Your task to perform on an android device: Open CNN.com Image 0: 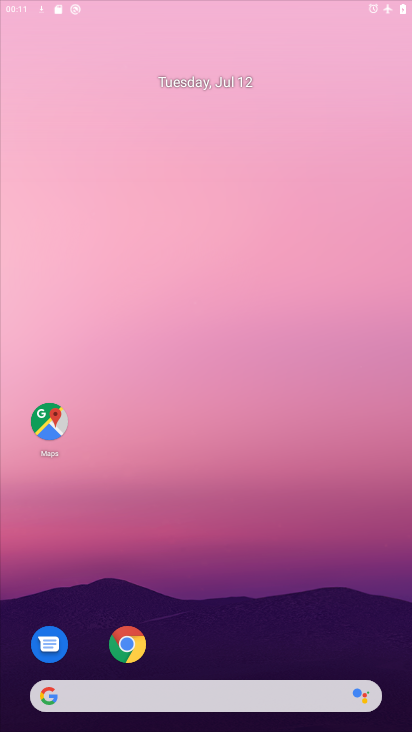
Step 0: drag from (244, 573) to (247, 327)
Your task to perform on an android device: Open CNN.com Image 1: 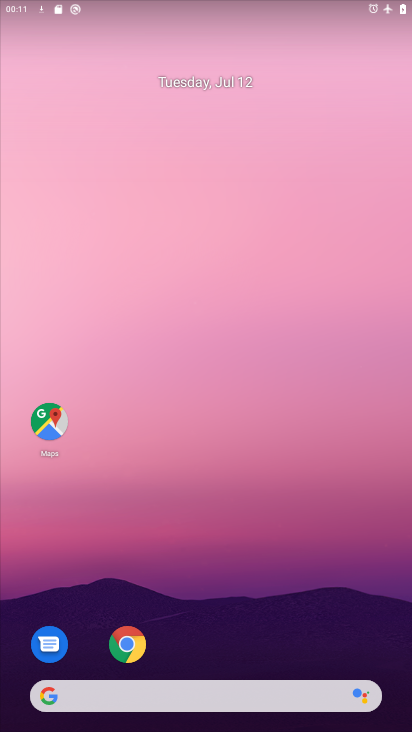
Step 1: drag from (181, 665) to (232, 303)
Your task to perform on an android device: Open CNN.com Image 2: 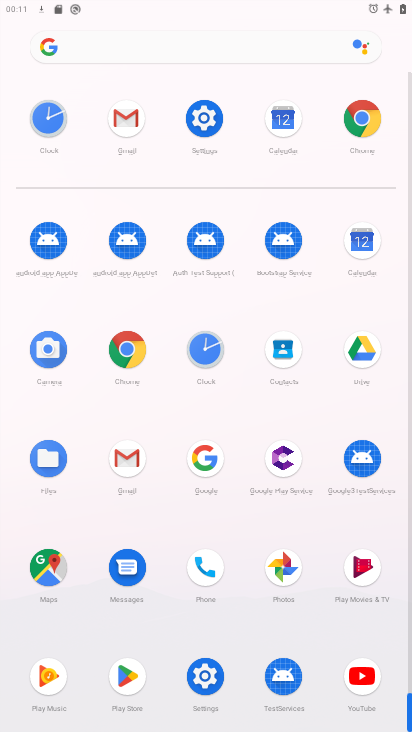
Step 2: click (364, 110)
Your task to perform on an android device: Open CNN.com Image 3: 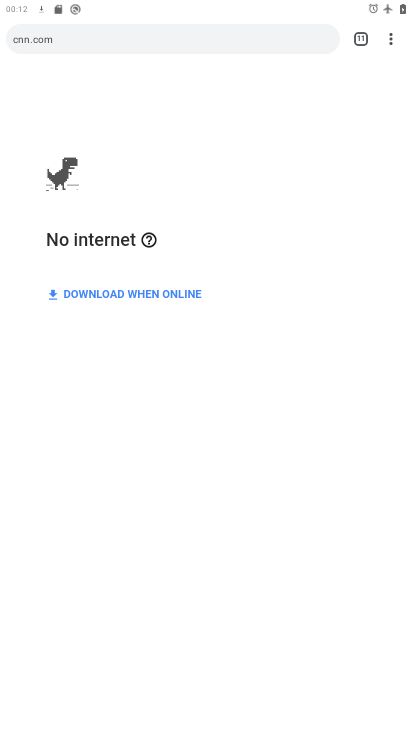
Step 3: click (388, 25)
Your task to perform on an android device: Open CNN.com Image 4: 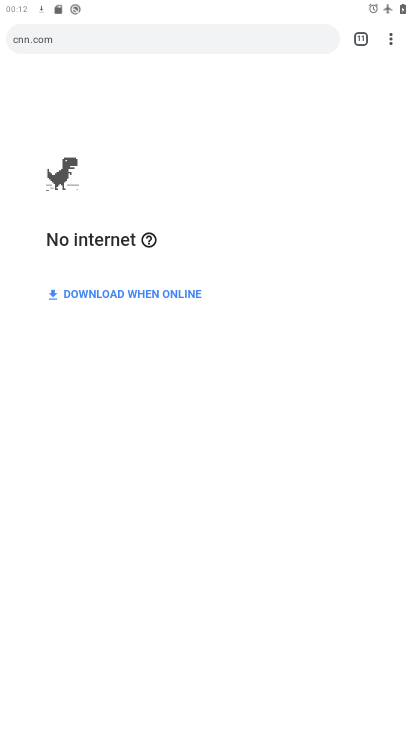
Step 4: click (394, 29)
Your task to perform on an android device: Open CNN.com Image 5: 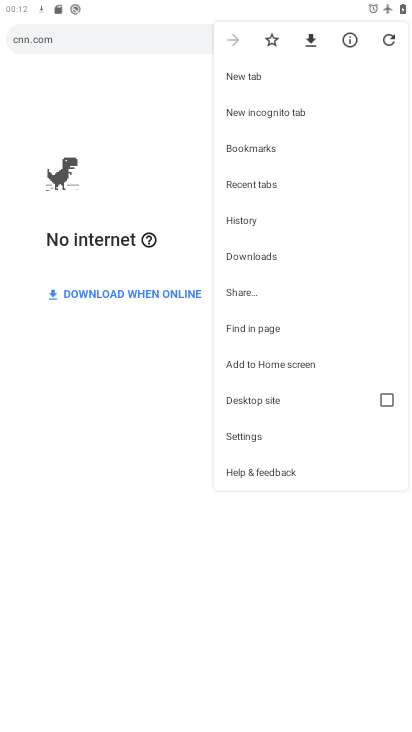
Step 5: click (270, 79)
Your task to perform on an android device: Open CNN.com Image 6: 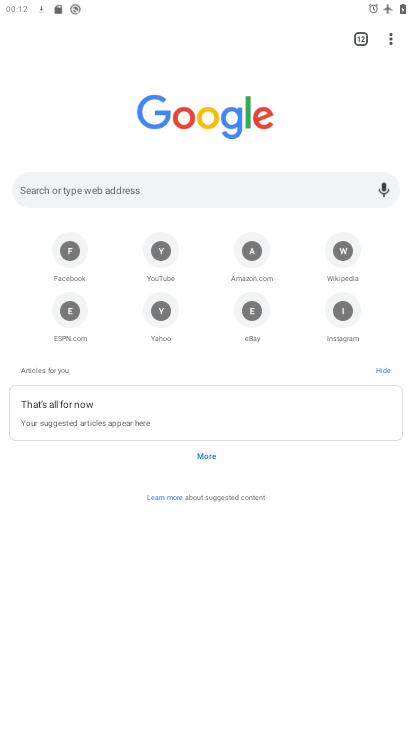
Step 6: click (253, 177)
Your task to perform on an android device: Open CNN.com Image 7: 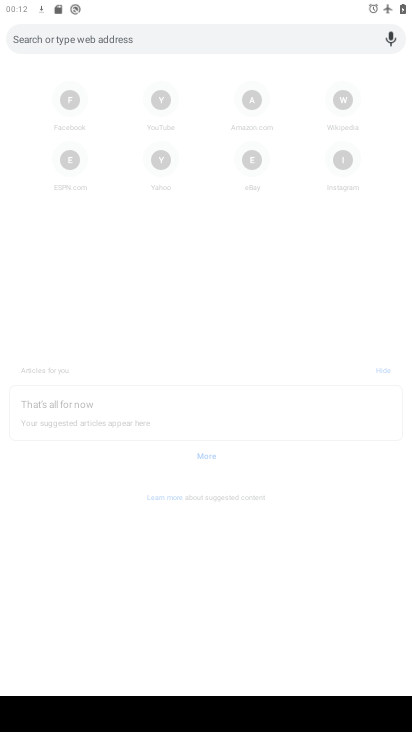
Step 7: type " CNN.com "
Your task to perform on an android device: Open CNN.com Image 8: 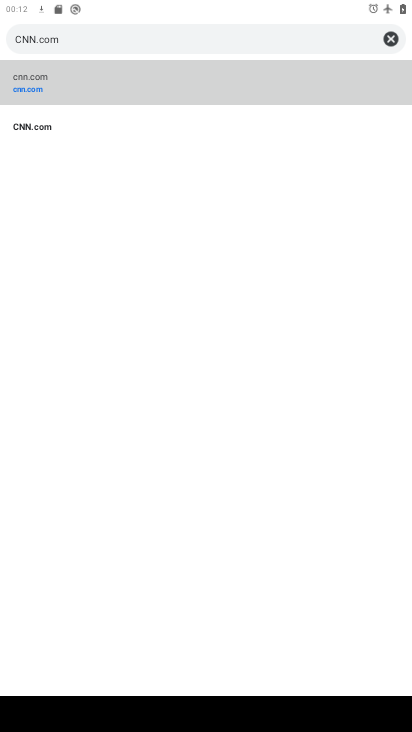
Step 8: click (114, 92)
Your task to perform on an android device: Open CNN.com Image 9: 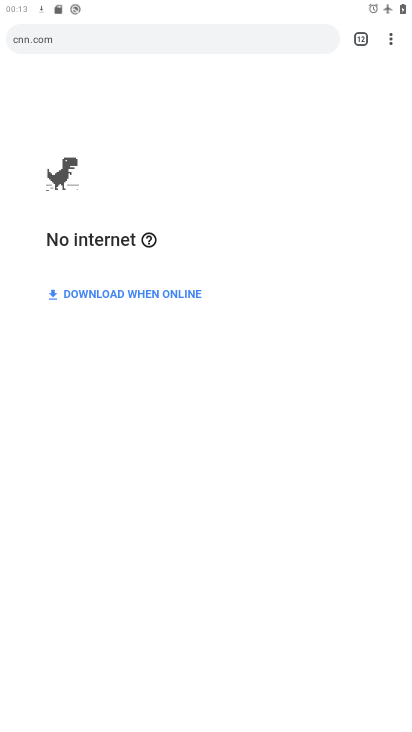
Step 9: task complete